Your task to perform on an android device: Go to eBay Image 0: 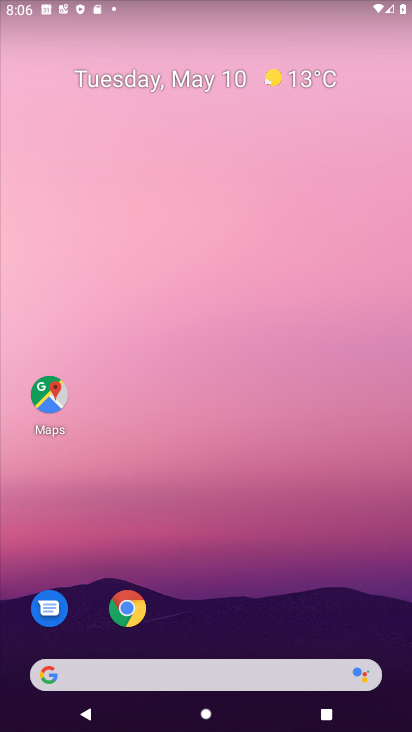
Step 0: drag from (175, 670) to (290, 199)
Your task to perform on an android device: Go to eBay Image 1: 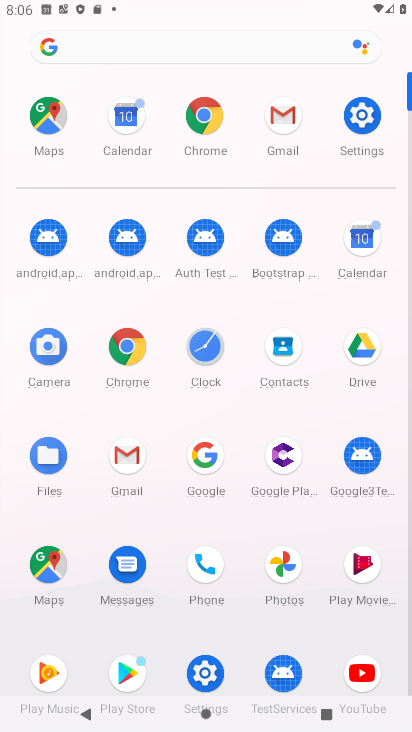
Step 1: click (204, 122)
Your task to perform on an android device: Go to eBay Image 2: 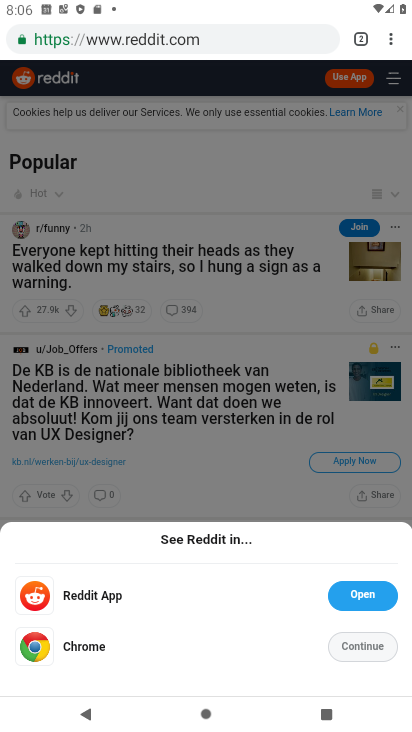
Step 2: drag from (392, 37) to (305, 78)
Your task to perform on an android device: Go to eBay Image 3: 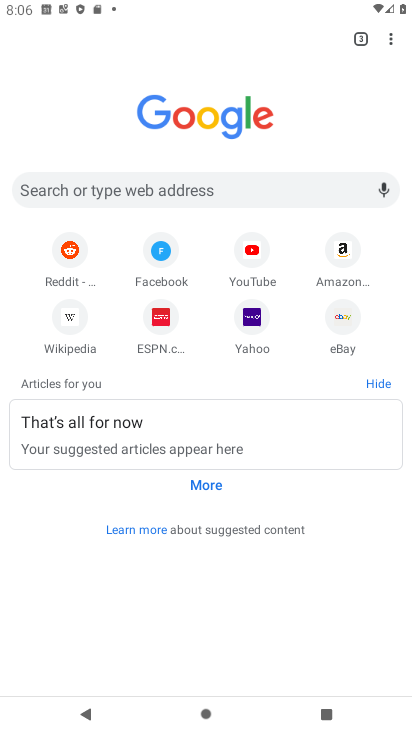
Step 3: click (344, 320)
Your task to perform on an android device: Go to eBay Image 4: 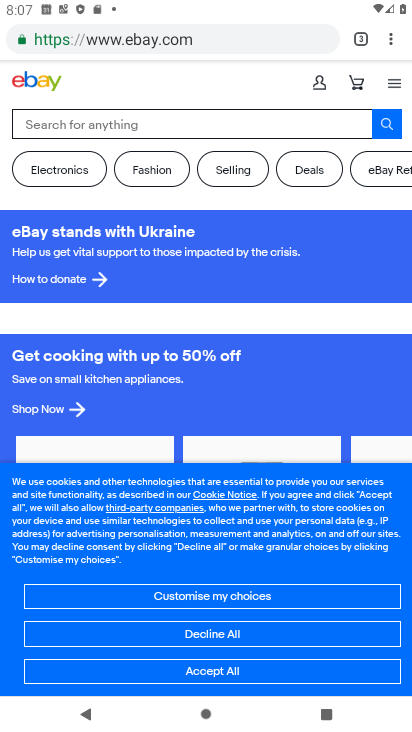
Step 4: task complete